Your task to perform on an android device: Open internet settings Image 0: 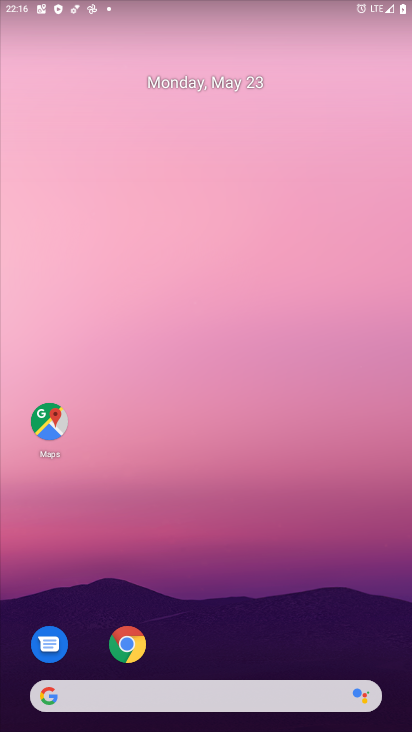
Step 0: drag from (111, 725) to (267, 19)
Your task to perform on an android device: Open internet settings Image 1: 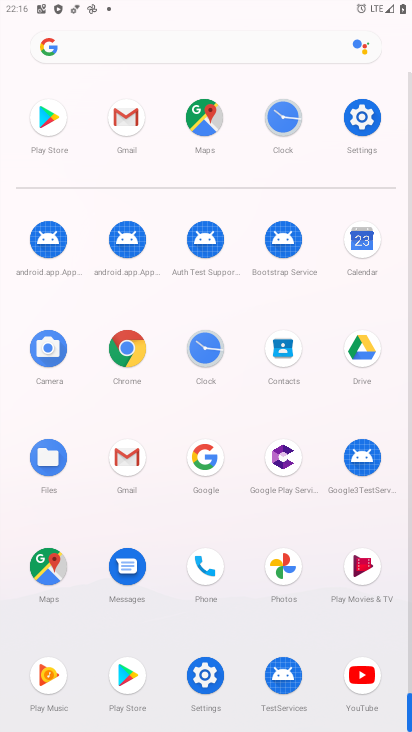
Step 1: click (359, 114)
Your task to perform on an android device: Open internet settings Image 2: 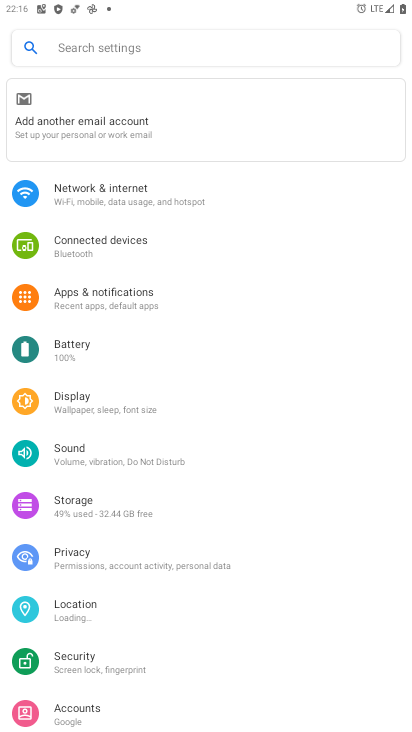
Step 2: click (207, 193)
Your task to perform on an android device: Open internet settings Image 3: 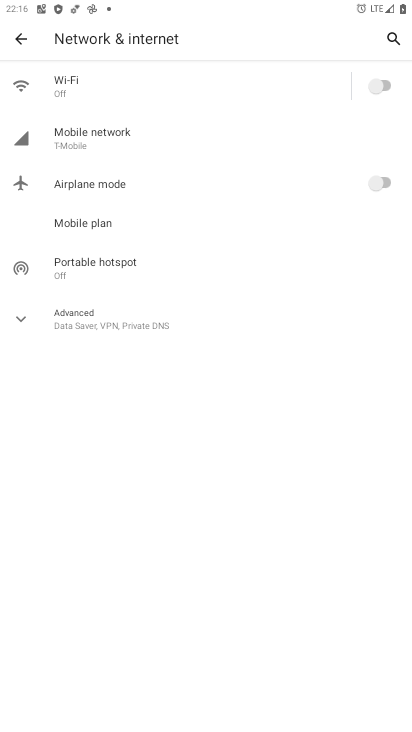
Step 3: task complete